Your task to perform on an android device: Open my contact list Image 0: 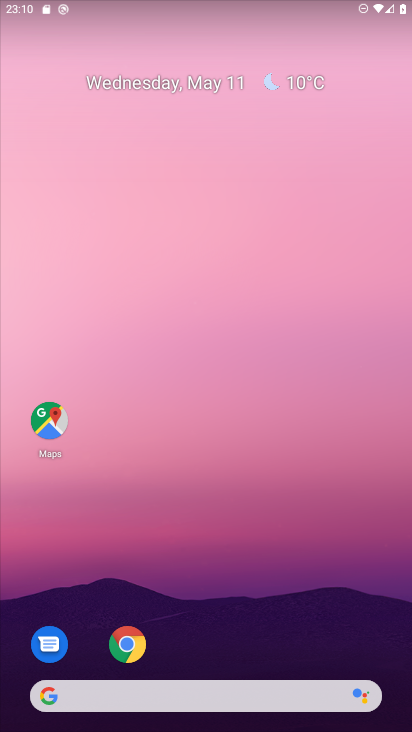
Step 0: press home button
Your task to perform on an android device: Open my contact list Image 1: 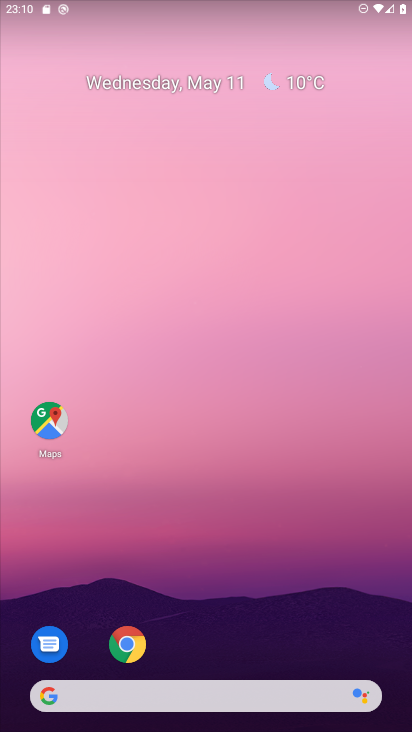
Step 1: drag from (370, 616) to (287, 117)
Your task to perform on an android device: Open my contact list Image 2: 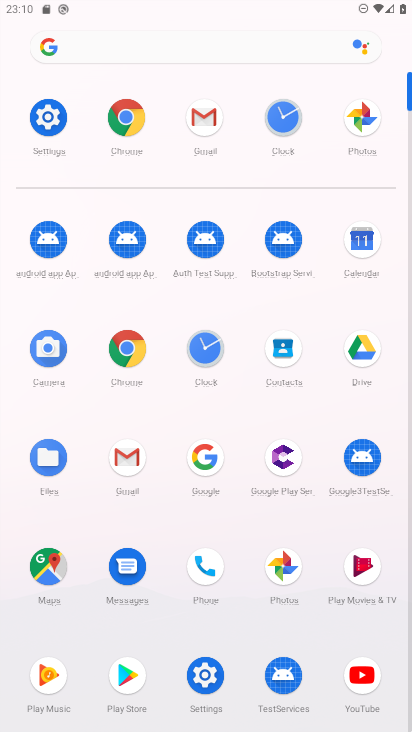
Step 2: click (277, 347)
Your task to perform on an android device: Open my contact list Image 3: 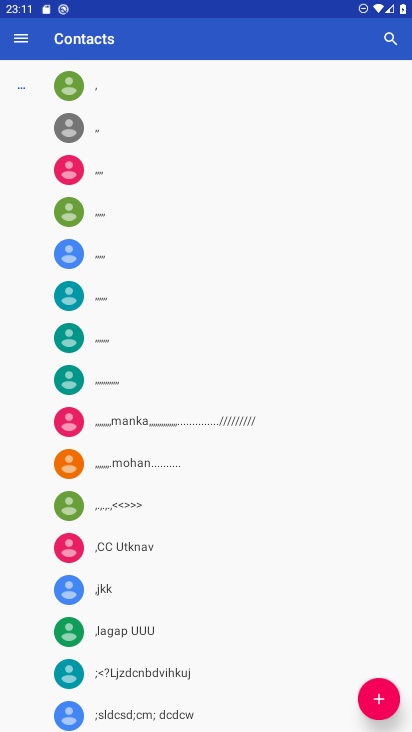
Step 3: task complete